Your task to perform on an android device: Open battery settings Image 0: 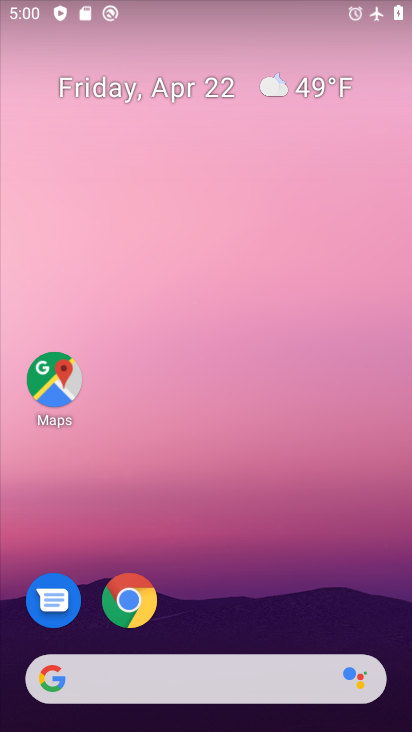
Step 0: drag from (243, 565) to (248, 43)
Your task to perform on an android device: Open battery settings Image 1: 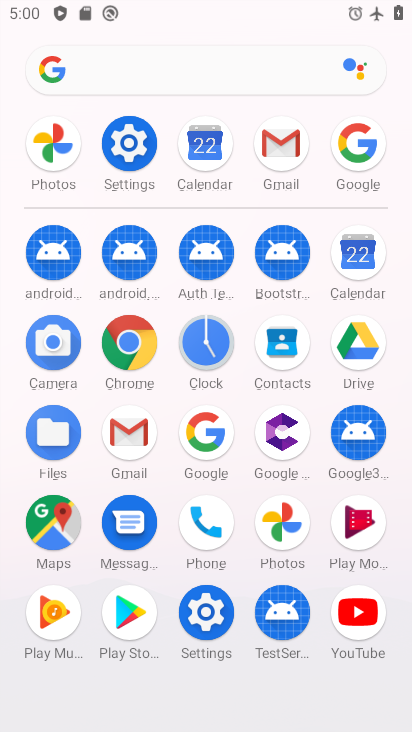
Step 1: click (130, 145)
Your task to perform on an android device: Open battery settings Image 2: 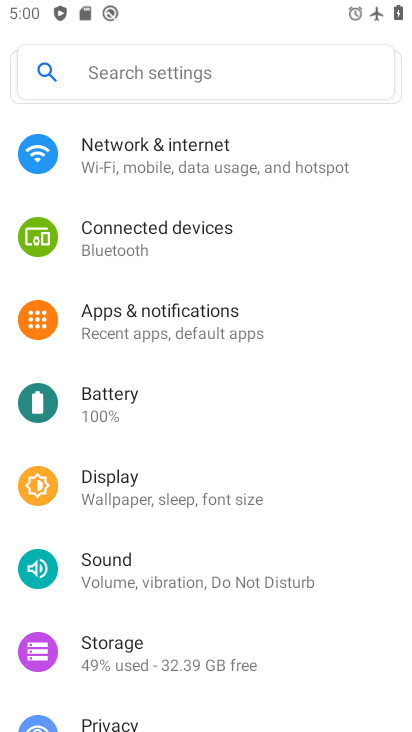
Step 2: click (117, 393)
Your task to perform on an android device: Open battery settings Image 3: 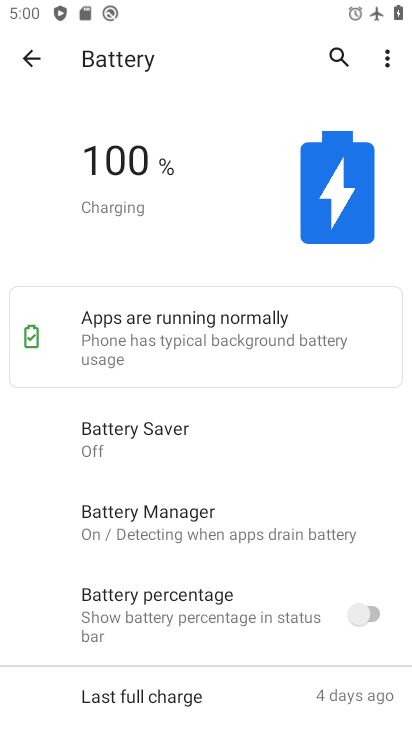
Step 3: task complete